Your task to perform on an android device: Go to Google maps Image 0: 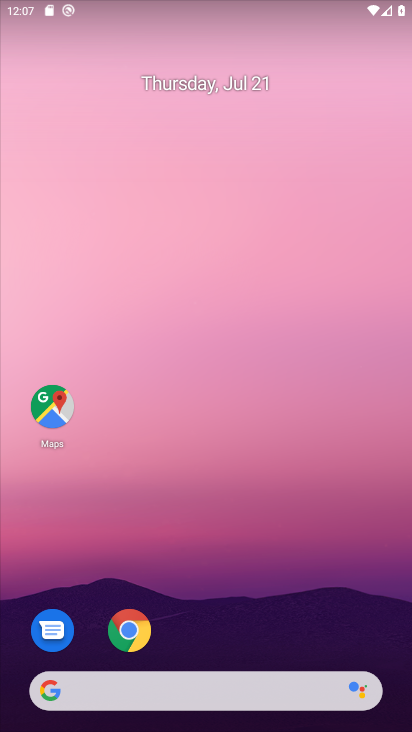
Step 0: drag from (198, 650) to (328, 60)
Your task to perform on an android device: Go to Google maps Image 1: 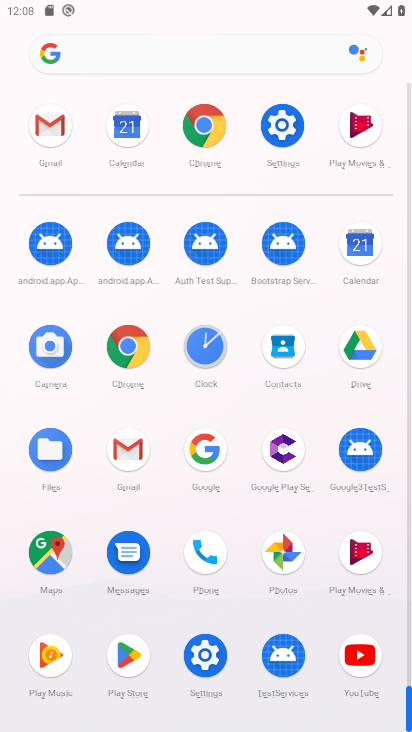
Step 1: click (55, 536)
Your task to perform on an android device: Go to Google maps Image 2: 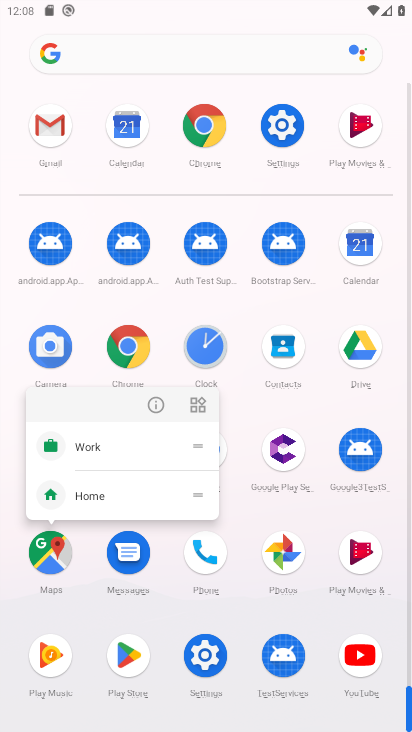
Step 2: click (155, 409)
Your task to perform on an android device: Go to Google maps Image 3: 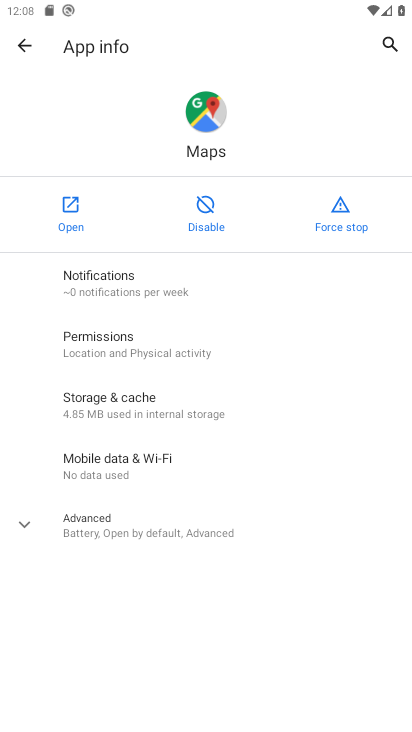
Step 3: click (57, 216)
Your task to perform on an android device: Go to Google maps Image 4: 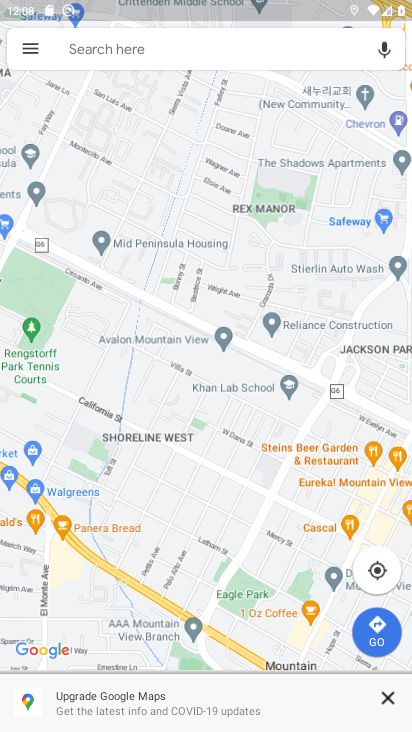
Step 4: task complete